Your task to perform on an android device: Open the Play Movies app and select the watchlist tab. Image 0: 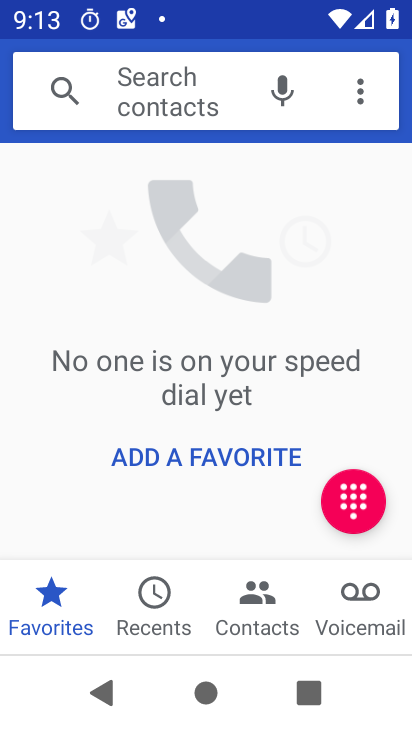
Step 0: press home button
Your task to perform on an android device: Open the Play Movies app and select the watchlist tab. Image 1: 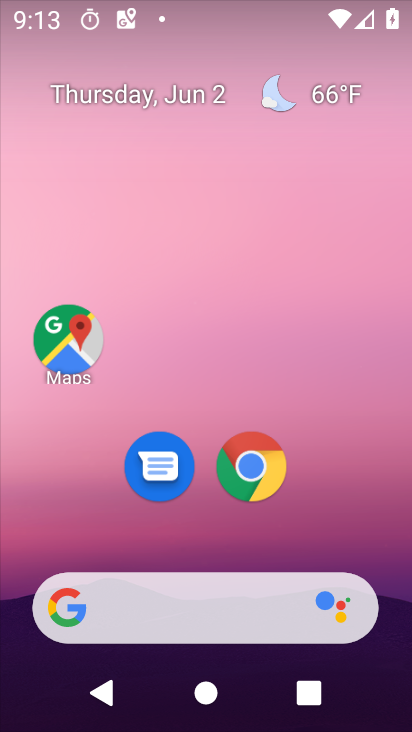
Step 1: drag from (14, 569) to (276, 149)
Your task to perform on an android device: Open the Play Movies app and select the watchlist tab. Image 2: 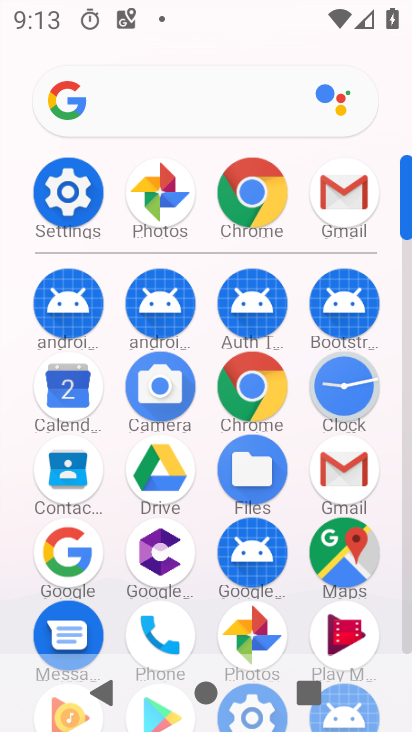
Step 2: click (335, 627)
Your task to perform on an android device: Open the Play Movies app and select the watchlist tab. Image 3: 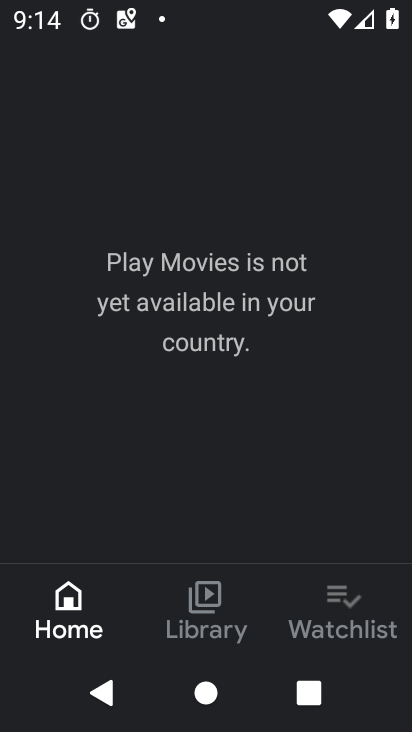
Step 3: click (331, 614)
Your task to perform on an android device: Open the Play Movies app and select the watchlist tab. Image 4: 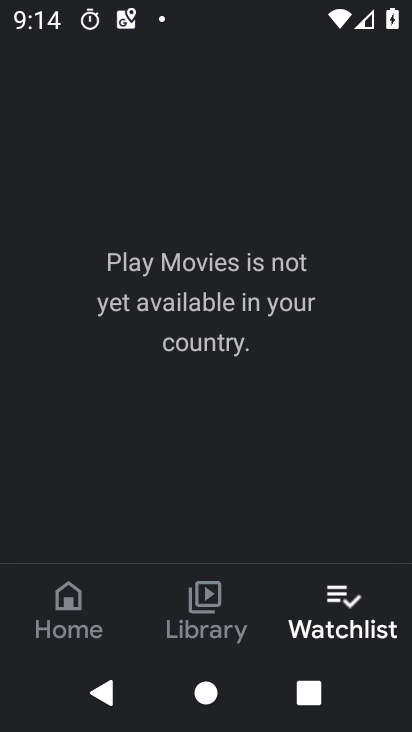
Step 4: task complete